Your task to perform on an android device: Open the calendar app, open the side menu, and click the "Day" option Image 0: 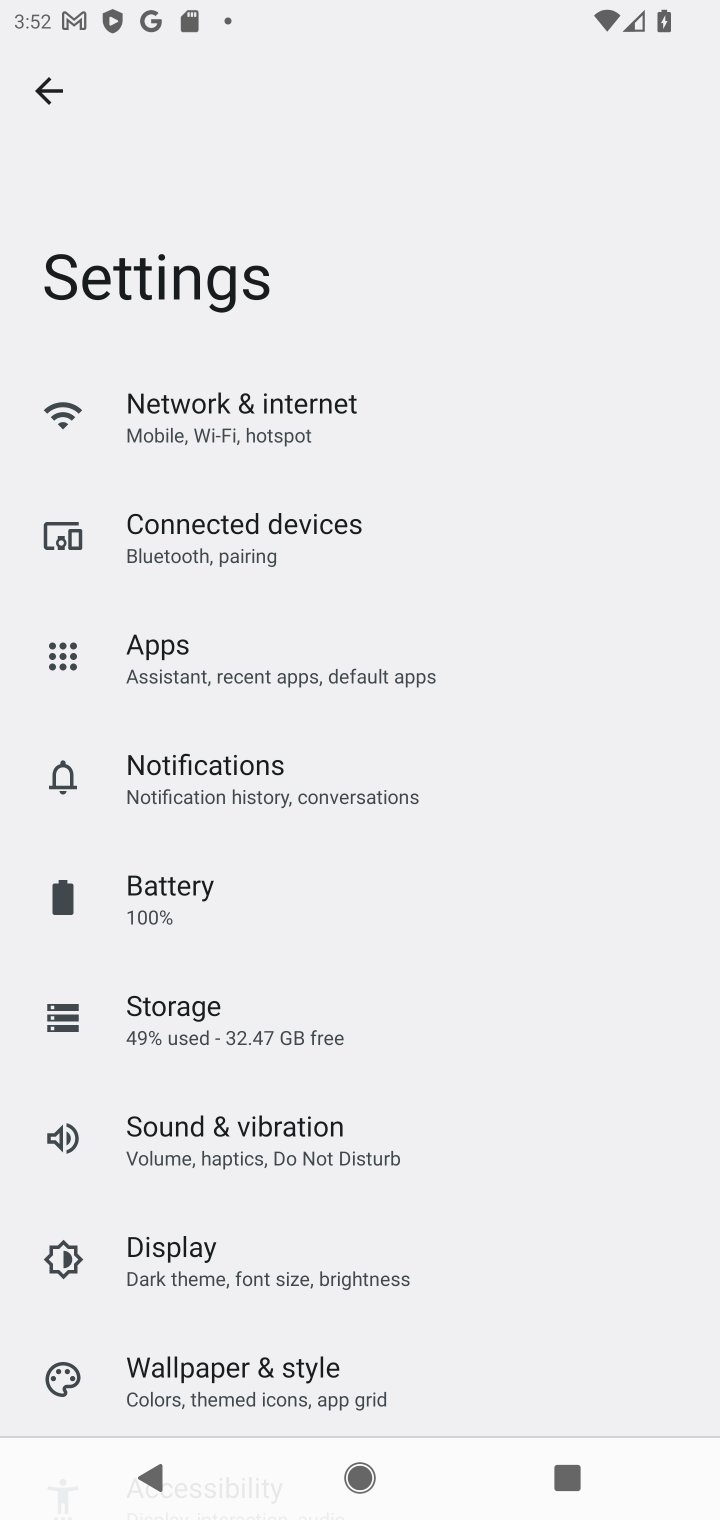
Step 0: press home button
Your task to perform on an android device: Open the calendar app, open the side menu, and click the "Day" option Image 1: 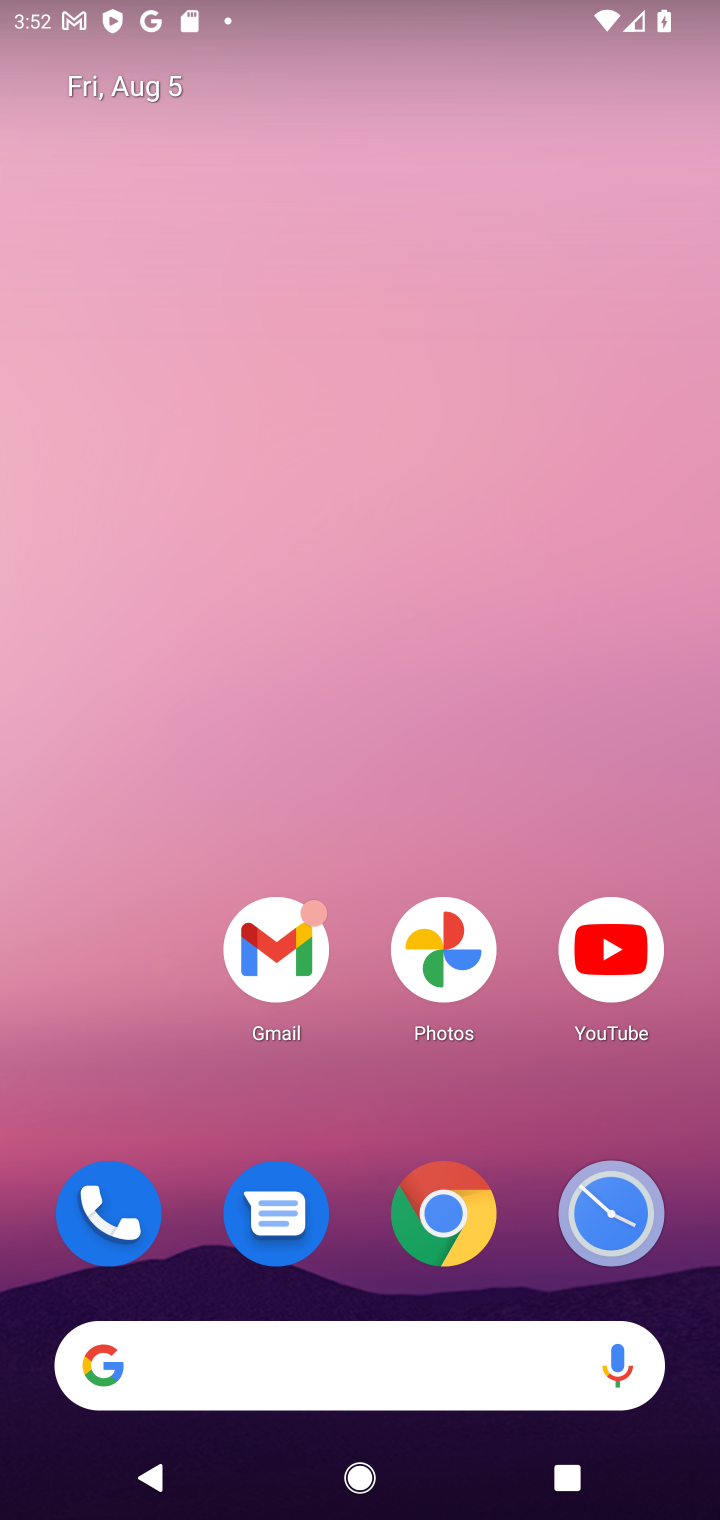
Step 1: drag from (342, 1288) to (341, 10)
Your task to perform on an android device: Open the calendar app, open the side menu, and click the "Day" option Image 2: 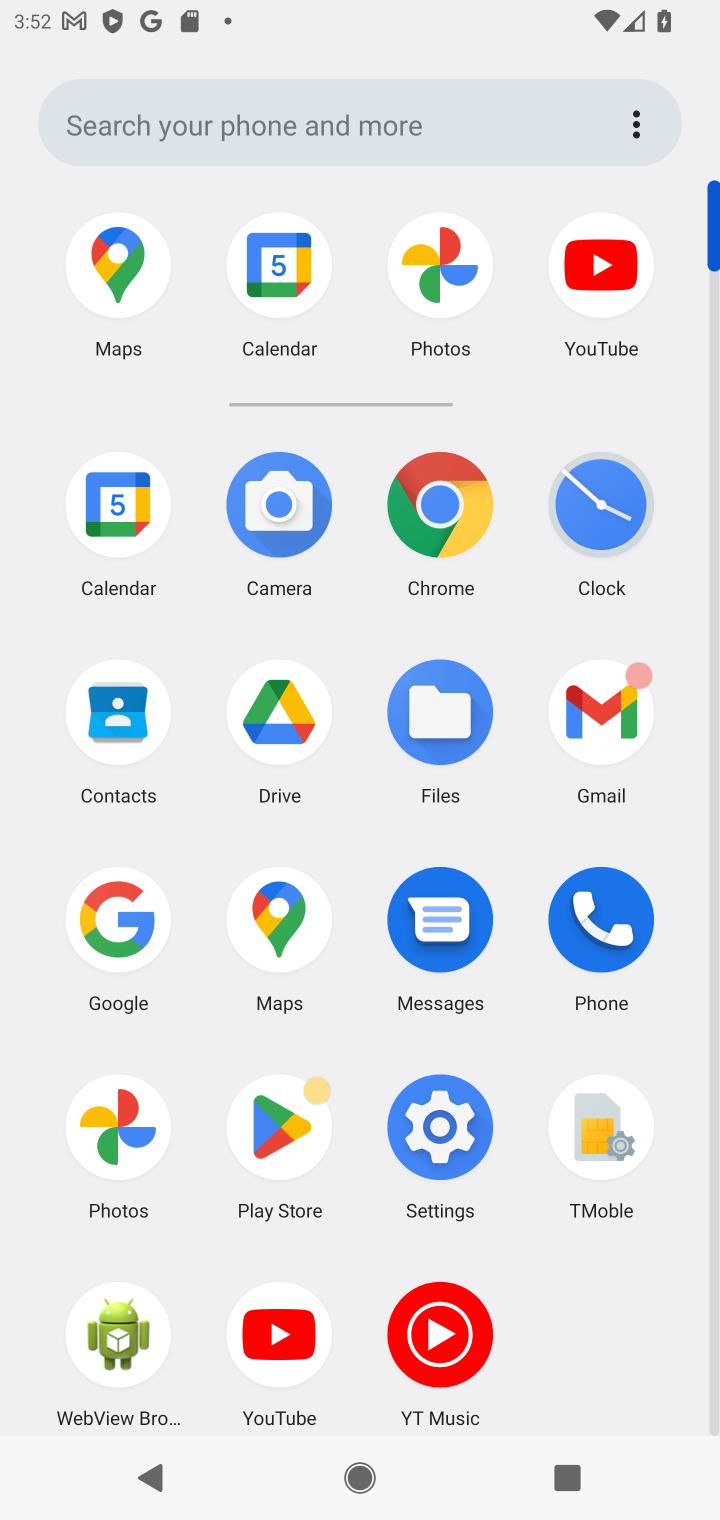
Step 2: click (125, 531)
Your task to perform on an android device: Open the calendar app, open the side menu, and click the "Day" option Image 3: 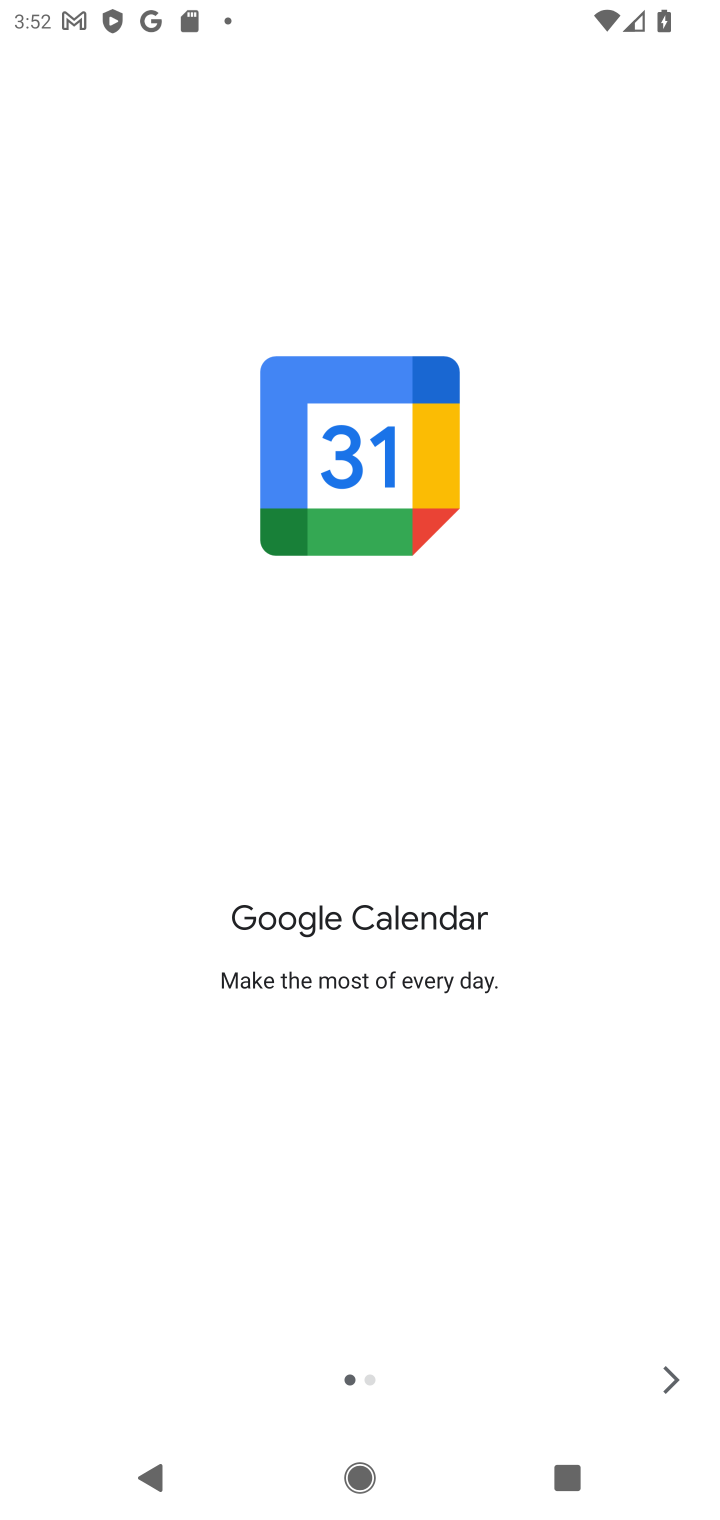
Step 3: click (660, 1398)
Your task to perform on an android device: Open the calendar app, open the side menu, and click the "Day" option Image 4: 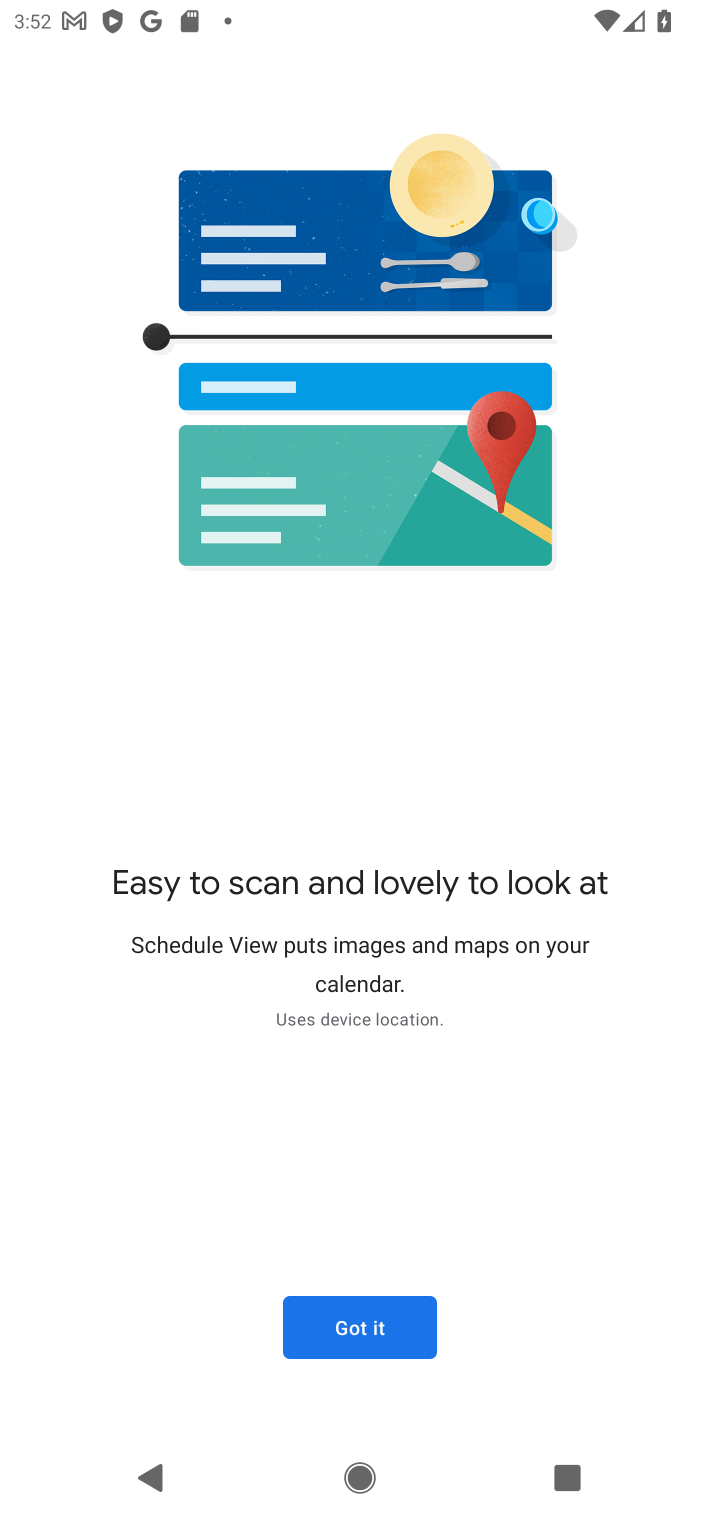
Step 4: click (308, 1305)
Your task to perform on an android device: Open the calendar app, open the side menu, and click the "Day" option Image 5: 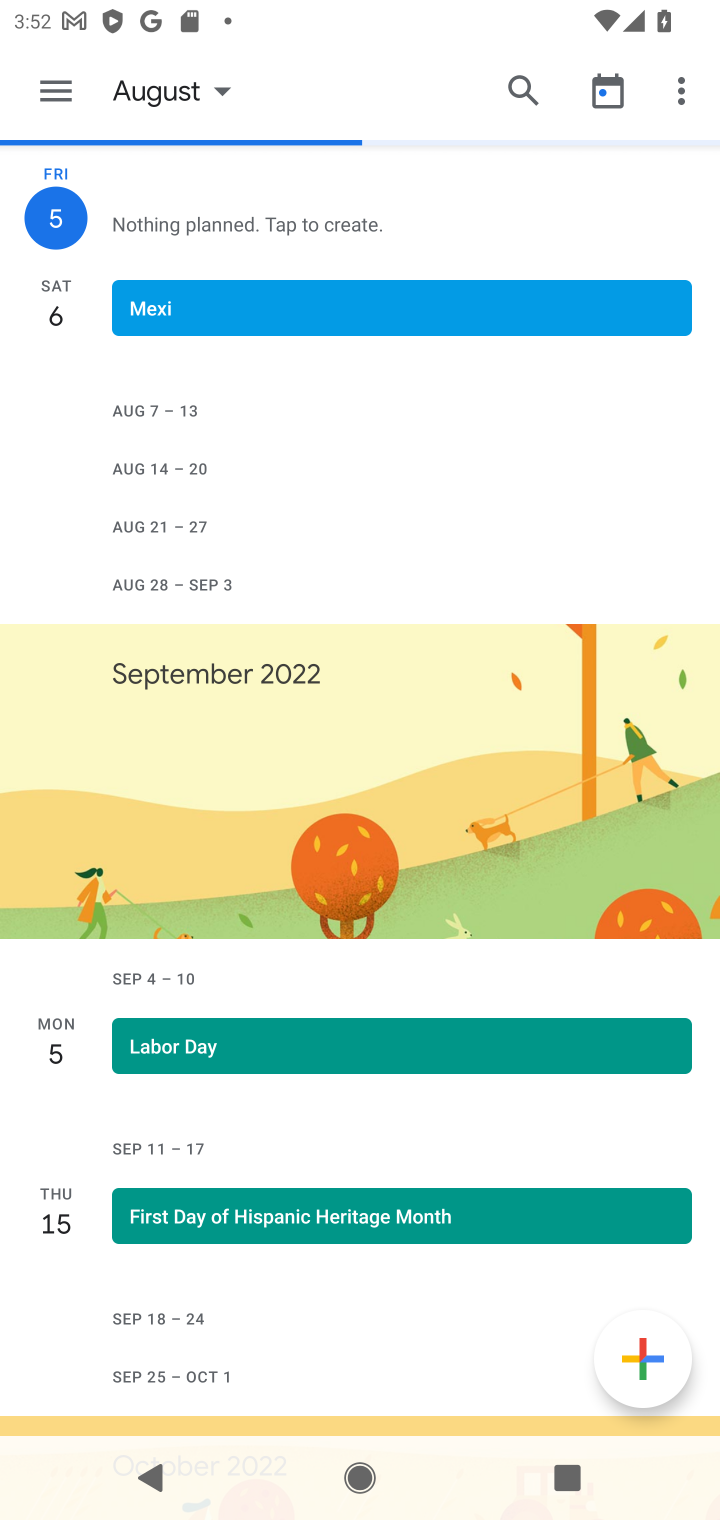
Step 5: task complete